Your task to perform on an android device: change the clock display to analog Image 0: 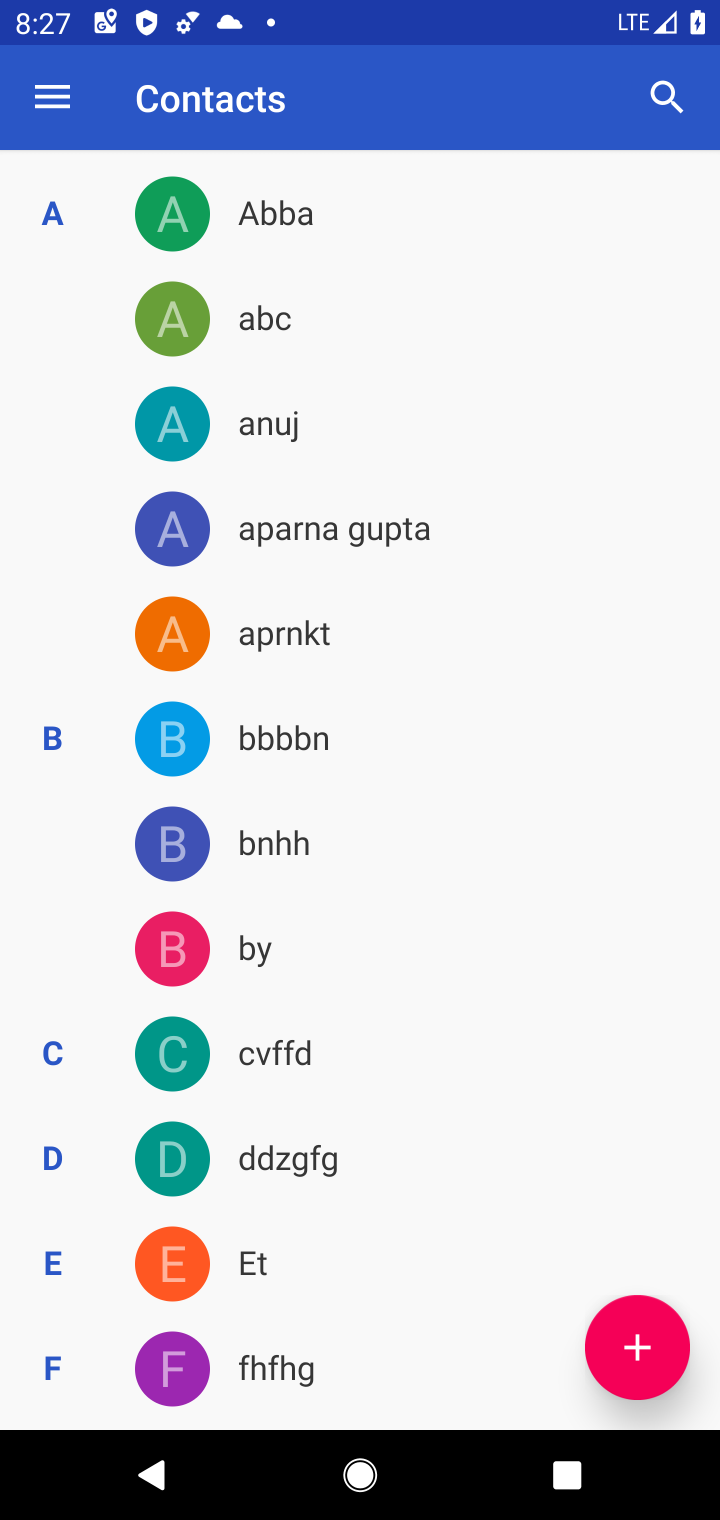
Step 0: press home button
Your task to perform on an android device: change the clock display to analog Image 1: 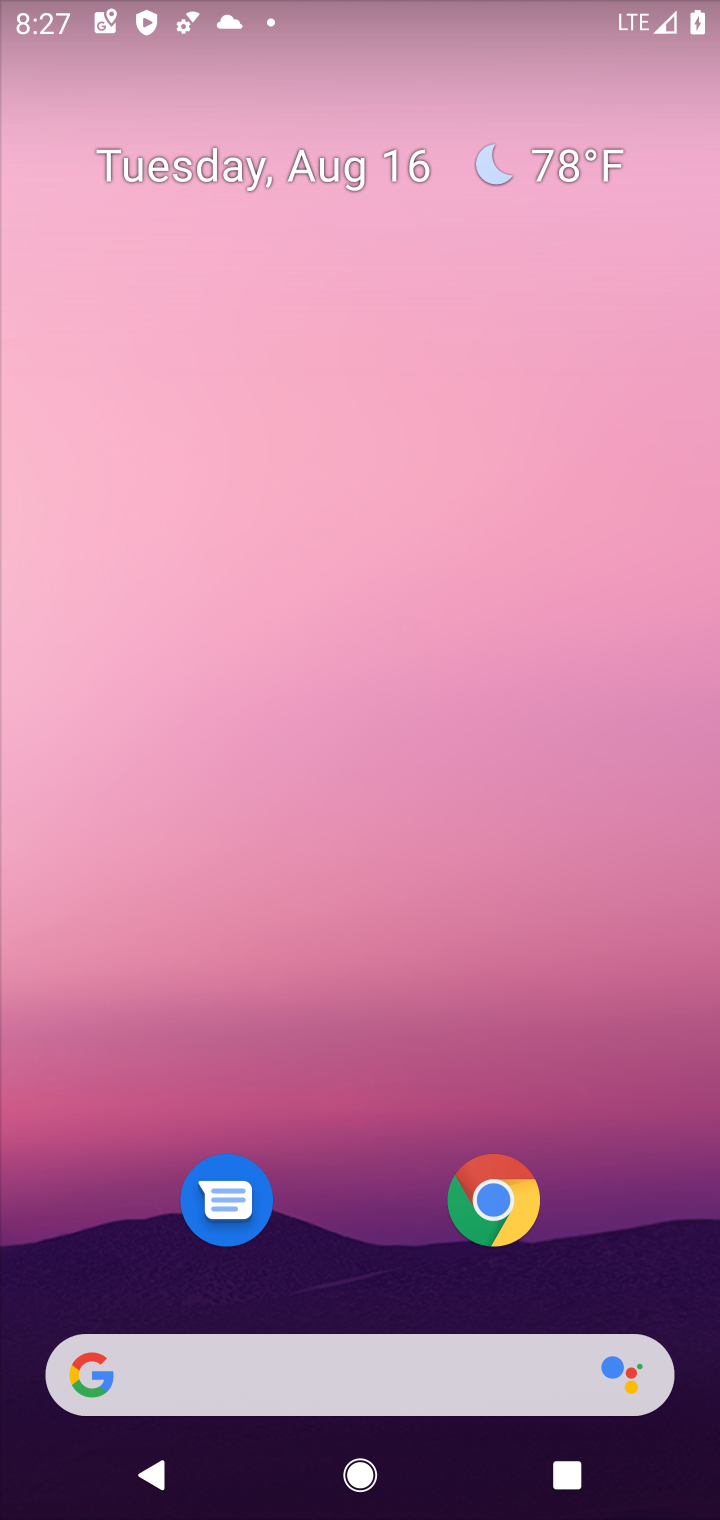
Step 1: drag from (671, 1276) to (636, 226)
Your task to perform on an android device: change the clock display to analog Image 2: 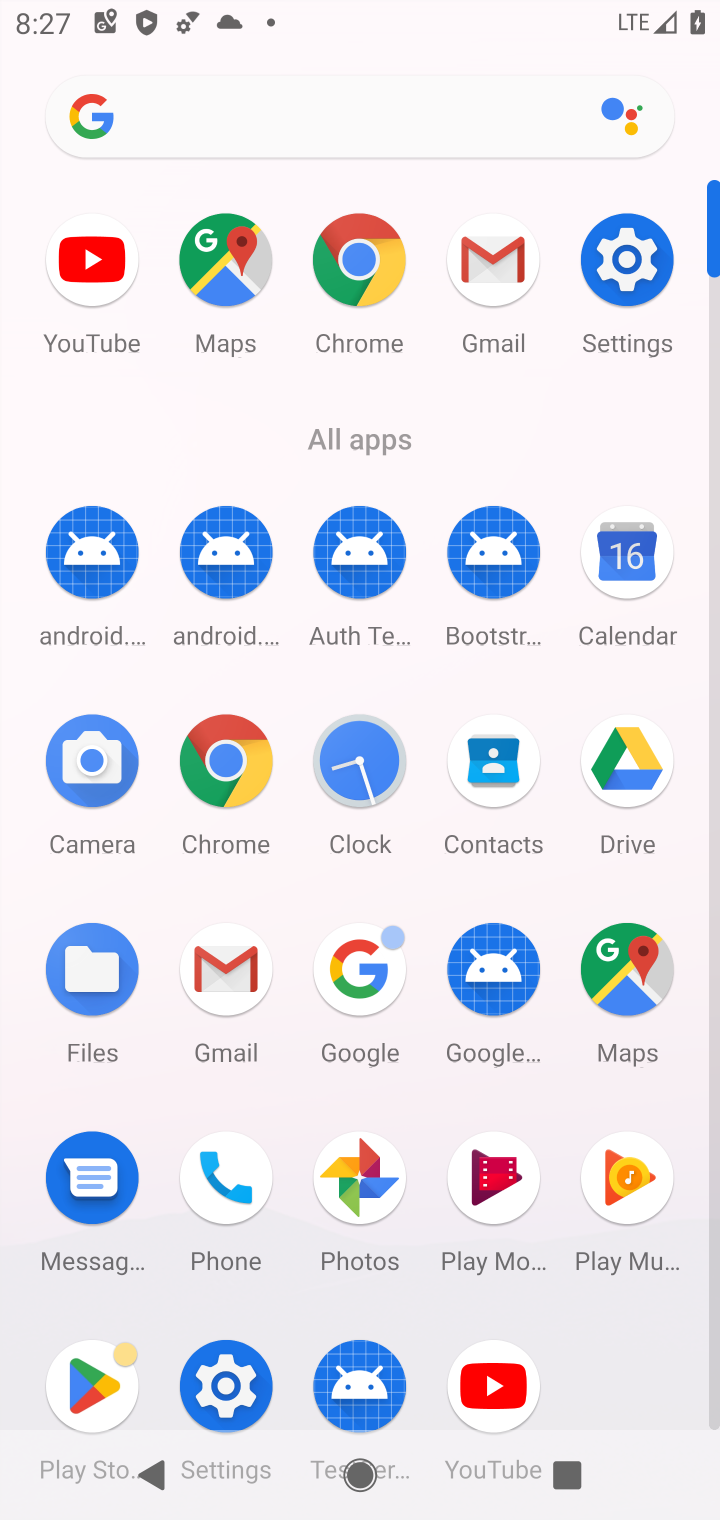
Step 2: click (360, 761)
Your task to perform on an android device: change the clock display to analog Image 3: 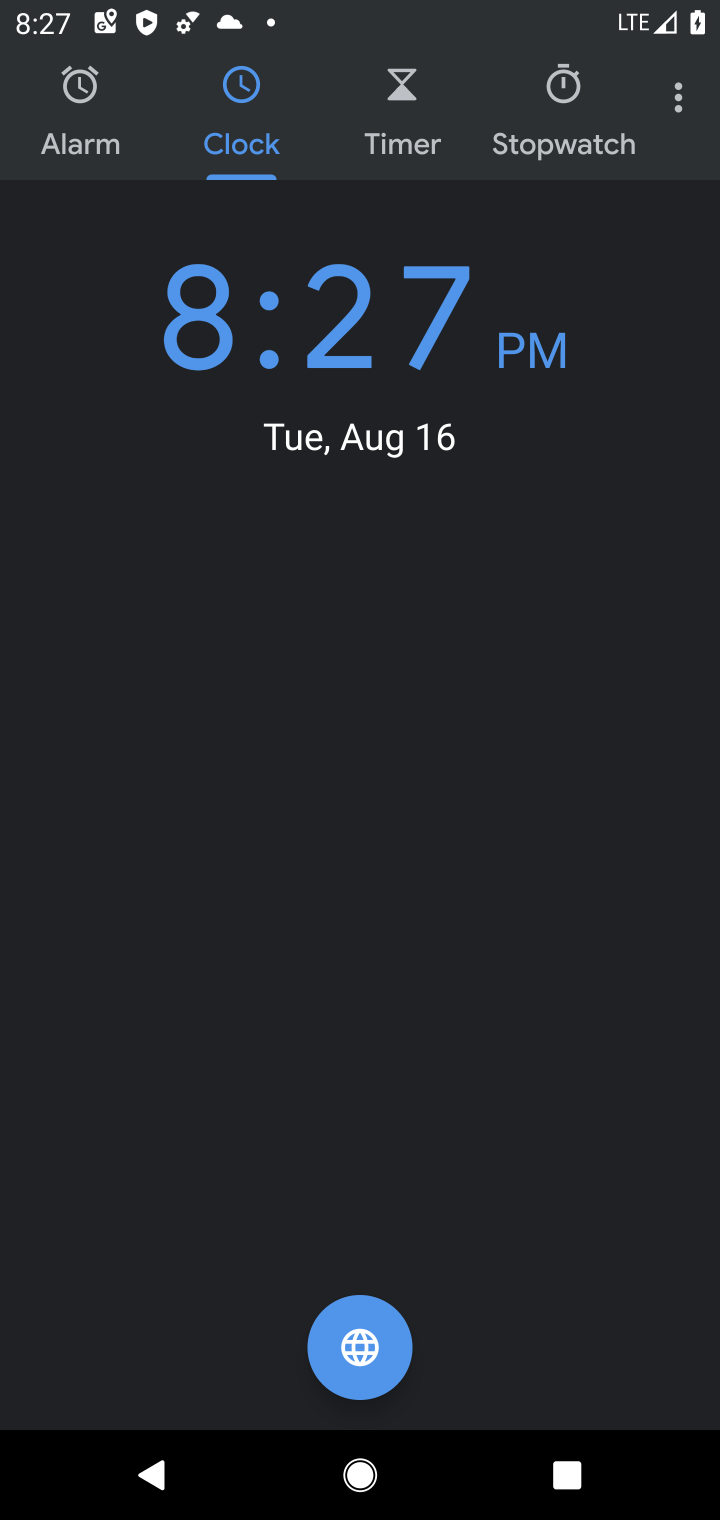
Step 3: click (670, 116)
Your task to perform on an android device: change the clock display to analog Image 4: 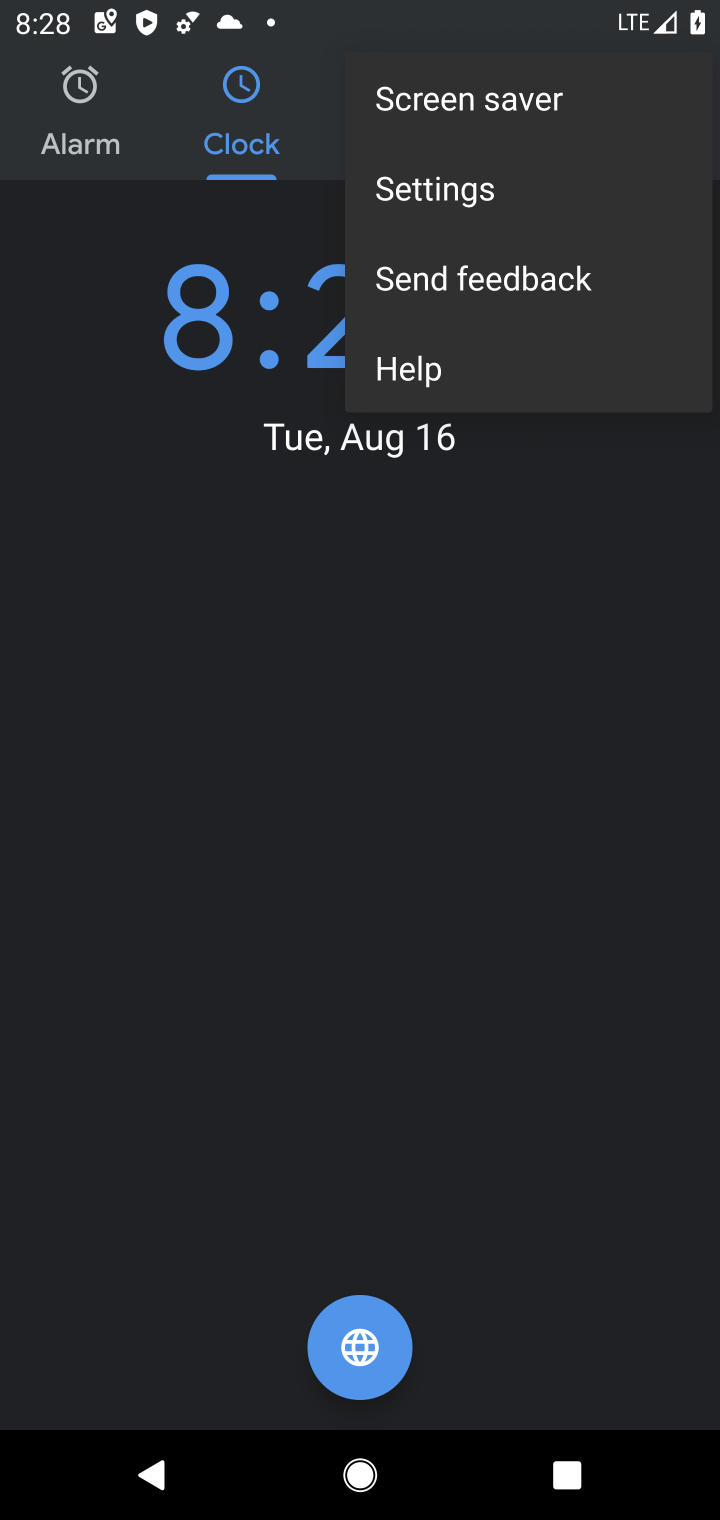
Step 4: click (420, 183)
Your task to perform on an android device: change the clock display to analog Image 5: 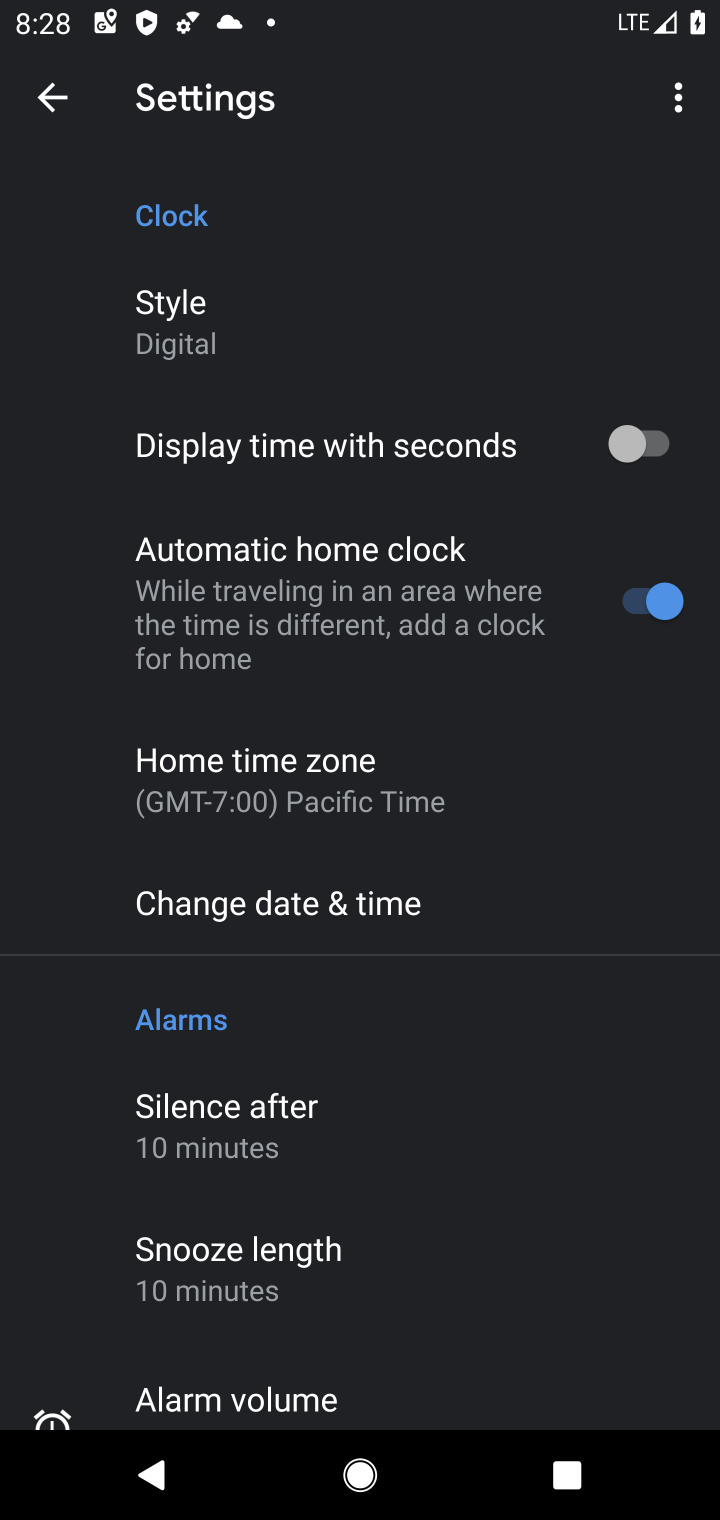
Step 5: click (166, 325)
Your task to perform on an android device: change the clock display to analog Image 6: 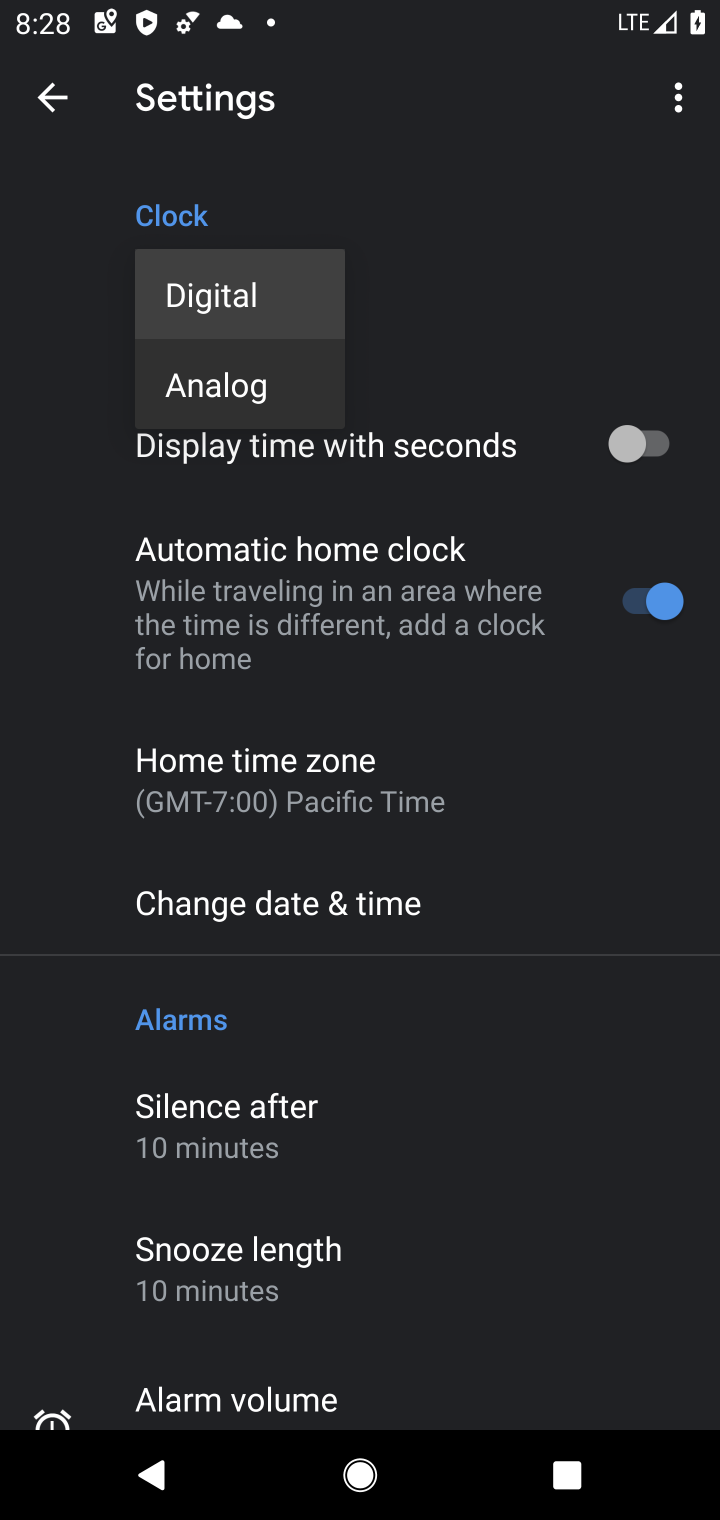
Step 6: click (217, 393)
Your task to perform on an android device: change the clock display to analog Image 7: 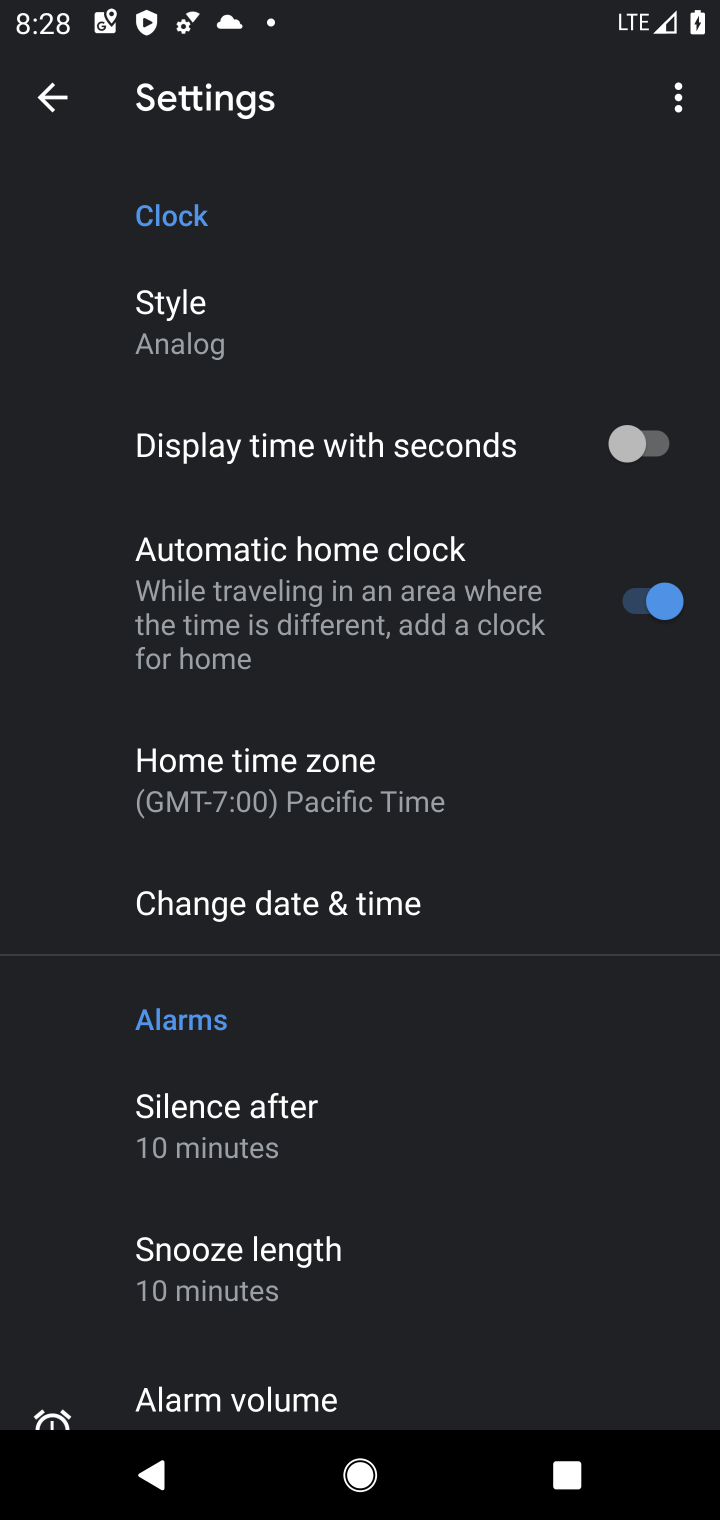
Step 7: task complete